Your task to perform on an android device: see tabs open on other devices in the chrome app Image 0: 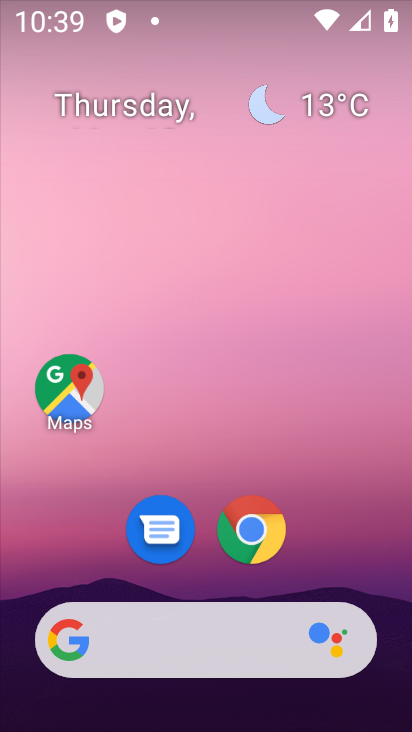
Step 0: click (248, 529)
Your task to perform on an android device: see tabs open on other devices in the chrome app Image 1: 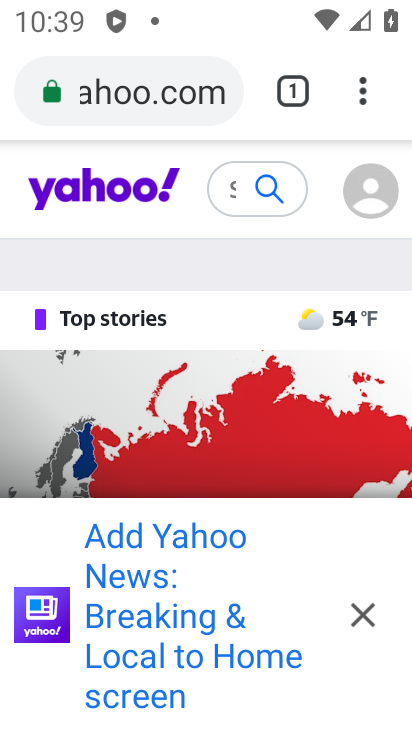
Step 1: click (366, 82)
Your task to perform on an android device: see tabs open on other devices in the chrome app Image 2: 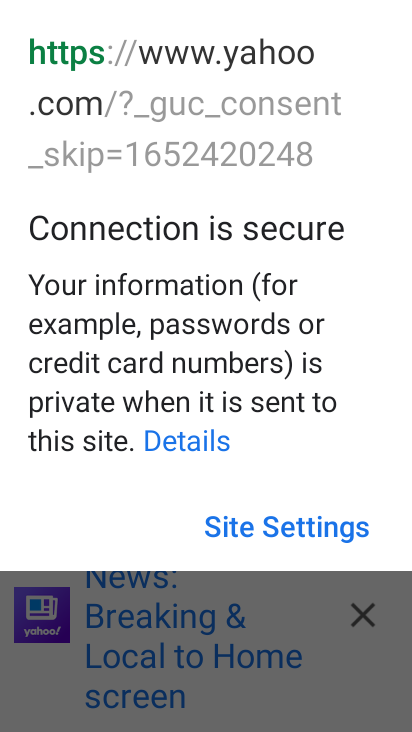
Step 2: click (334, 651)
Your task to perform on an android device: see tabs open on other devices in the chrome app Image 3: 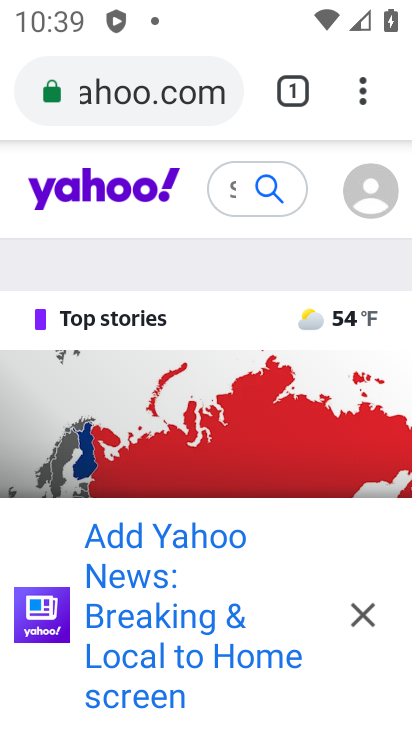
Step 3: click (370, 85)
Your task to perform on an android device: see tabs open on other devices in the chrome app Image 4: 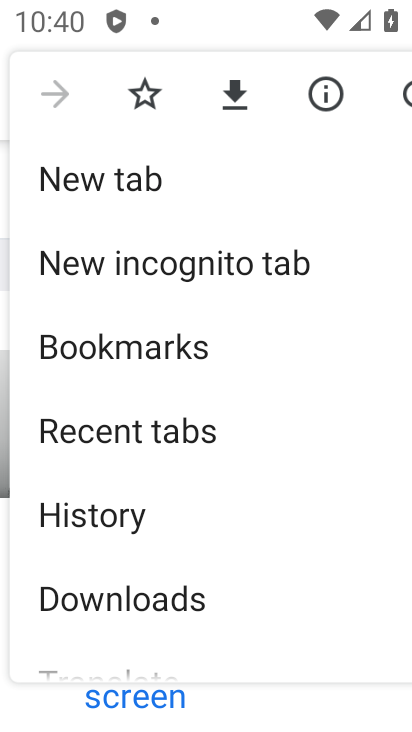
Step 4: click (99, 430)
Your task to perform on an android device: see tabs open on other devices in the chrome app Image 5: 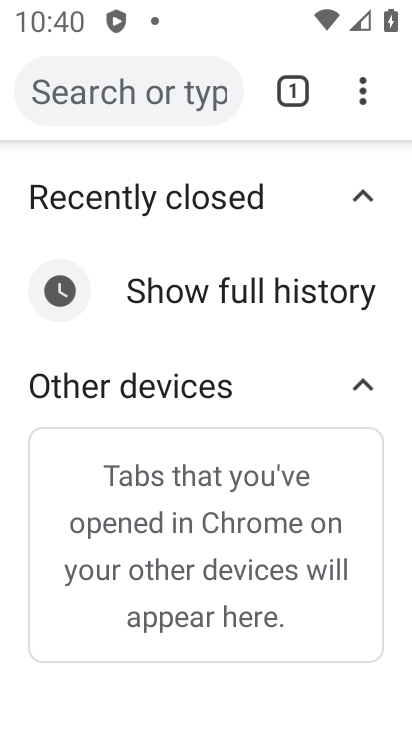
Step 5: task complete